Your task to perform on an android device: Go to Yahoo.com Image 0: 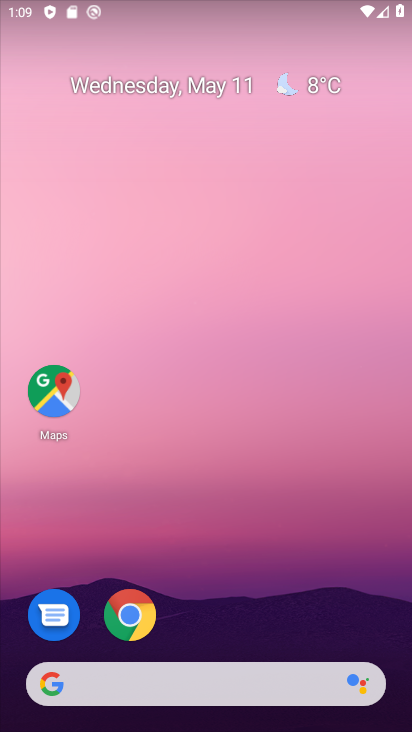
Step 0: drag from (301, 525) to (385, 5)
Your task to perform on an android device: Go to Yahoo.com Image 1: 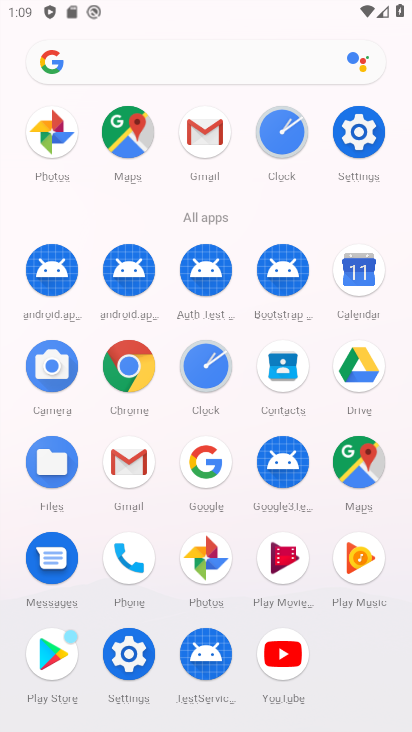
Step 1: click (117, 380)
Your task to perform on an android device: Go to Yahoo.com Image 2: 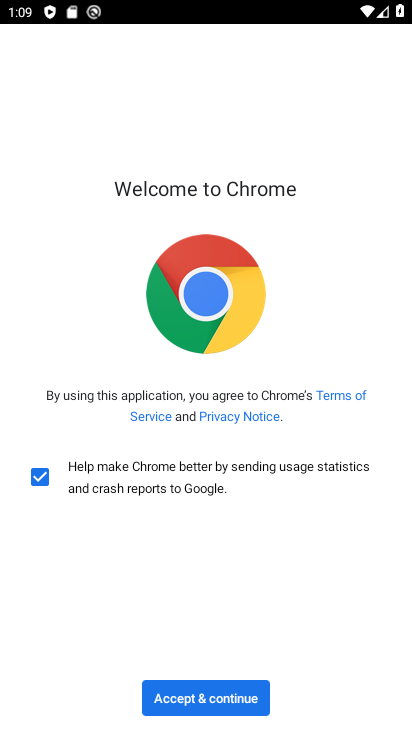
Step 2: click (248, 696)
Your task to perform on an android device: Go to Yahoo.com Image 3: 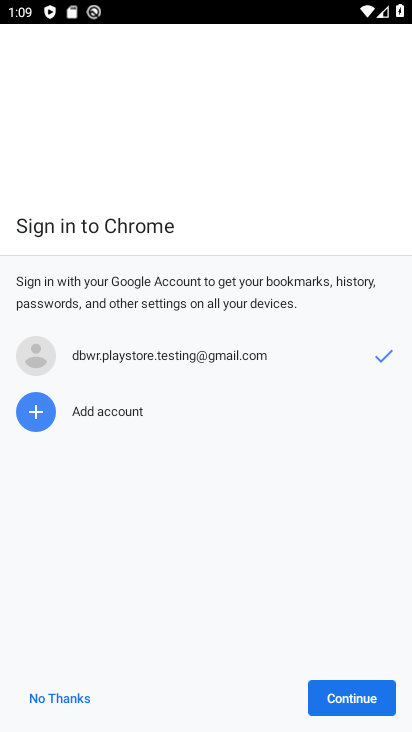
Step 3: click (42, 720)
Your task to perform on an android device: Go to Yahoo.com Image 4: 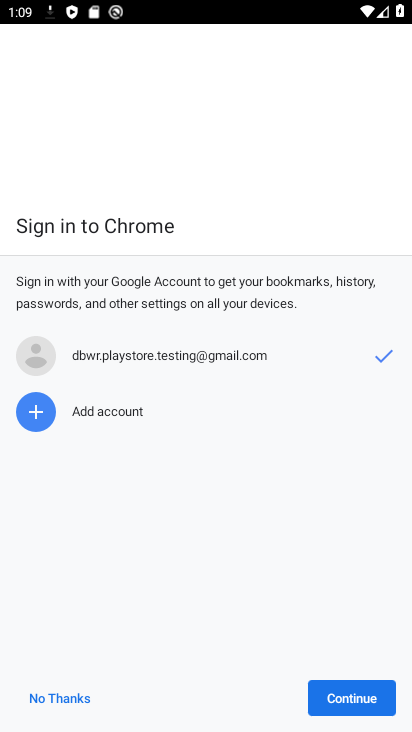
Step 4: click (42, 702)
Your task to perform on an android device: Go to Yahoo.com Image 5: 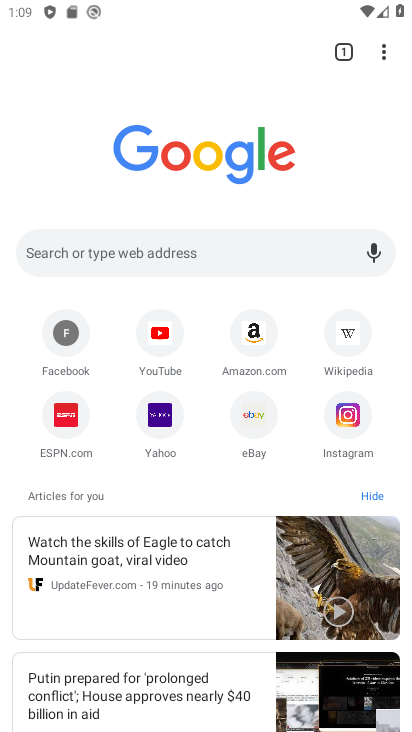
Step 5: click (171, 424)
Your task to perform on an android device: Go to Yahoo.com Image 6: 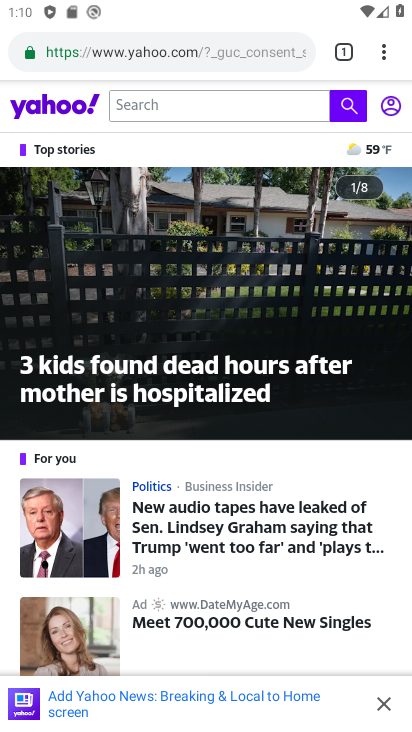
Step 6: task complete